Your task to perform on an android device: Go to ESPN.com Image 0: 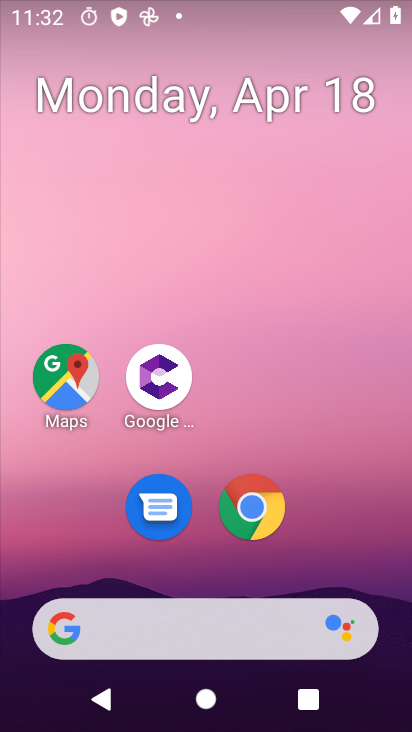
Step 0: click (247, 502)
Your task to perform on an android device: Go to ESPN.com Image 1: 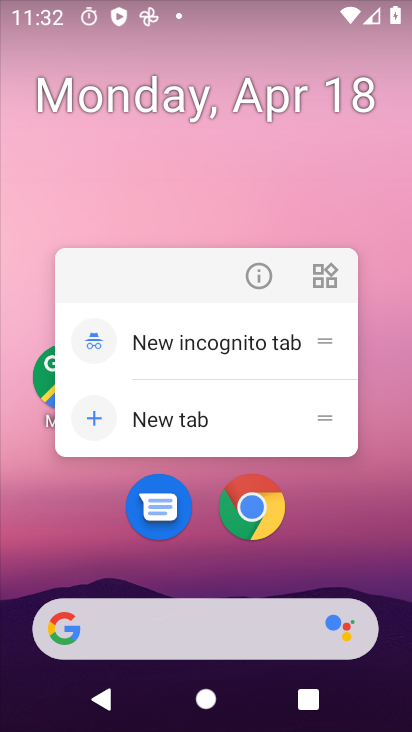
Step 1: click (247, 502)
Your task to perform on an android device: Go to ESPN.com Image 2: 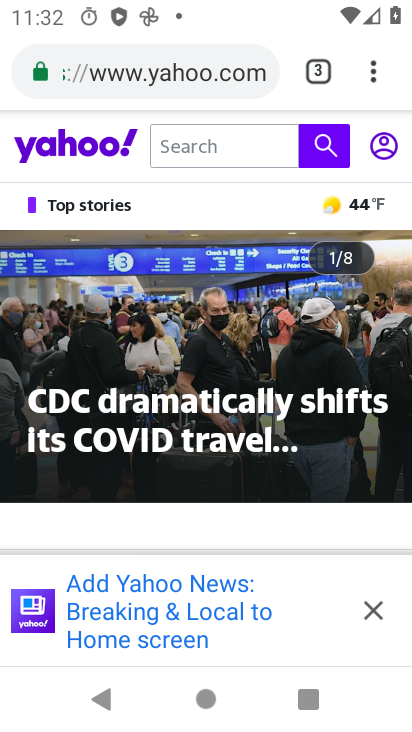
Step 2: click (234, 79)
Your task to perform on an android device: Go to ESPN.com Image 3: 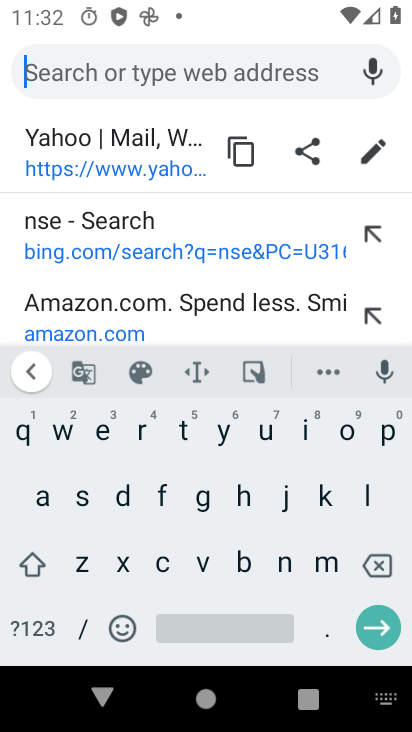
Step 3: click (99, 433)
Your task to perform on an android device: Go to ESPN.com Image 4: 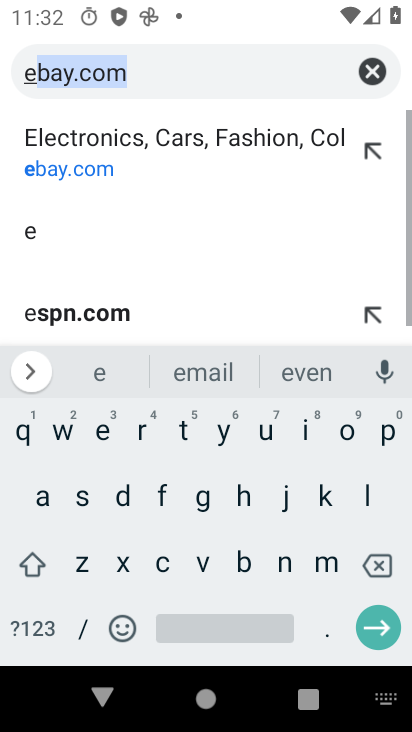
Step 4: click (82, 495)
Your task to perform on an android device: Go to ESPN.com Image 5: 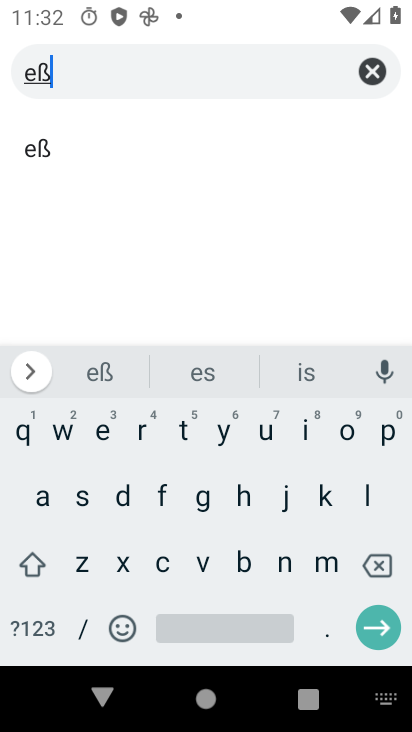
Step 5: click (385, 560)
Your task to perform on an android device: Go to ESPN.com Image 6: 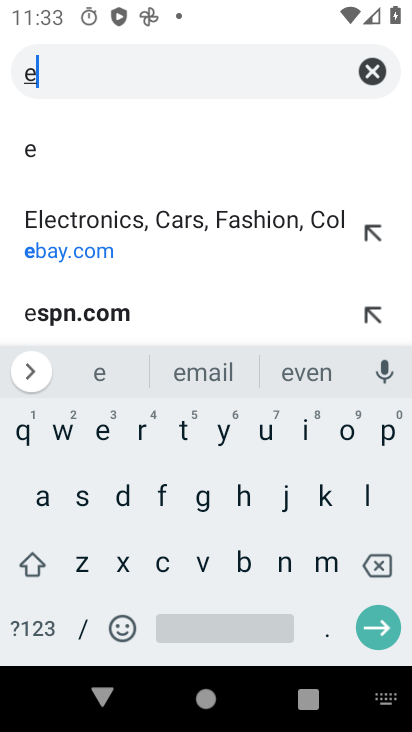
Step 6: click (85, 508)
Your task to perform on an android device: Go to ESPN.com Image 7: 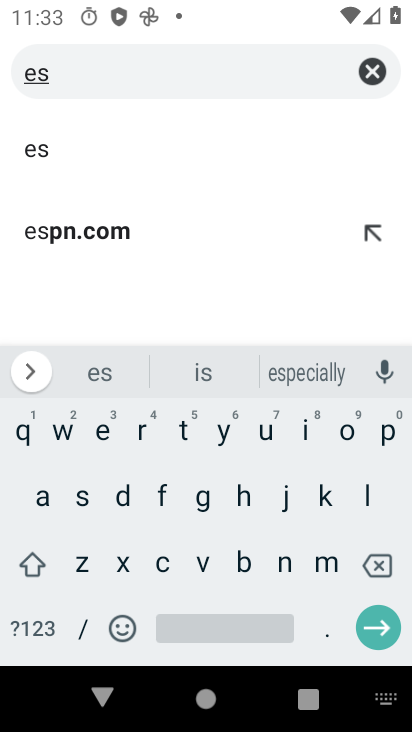
Step 7: click (152, 236)
Your task to perform on an android device: Go to ESPN.com Image 8: 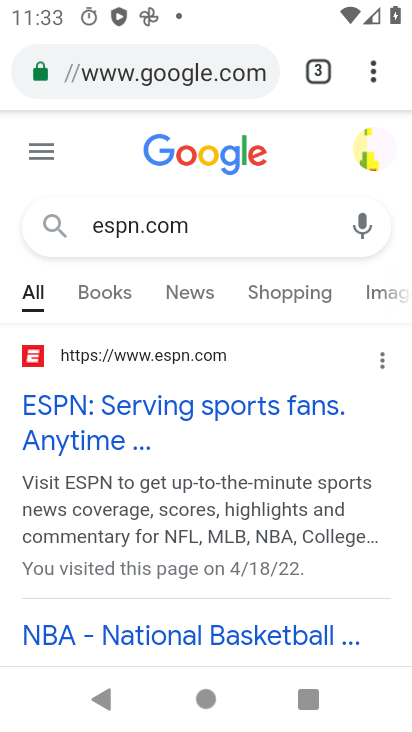
Step 8: click (123, 404)
Your task to perform on an android device: Go to ESPN.com Image 9: 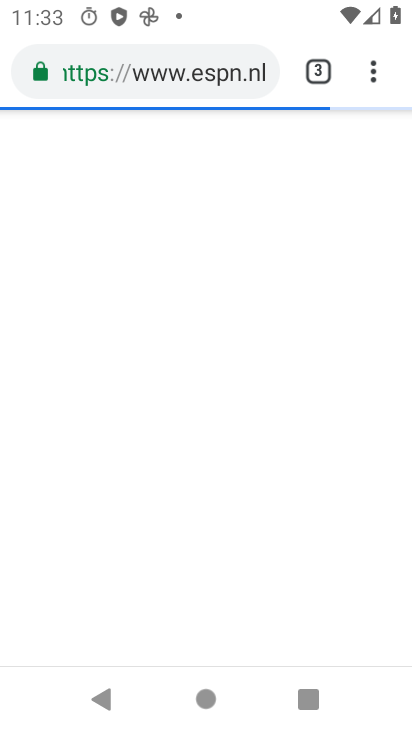
Step 9: task complete